Your task to perform on an android device: Open location settings Image 0: 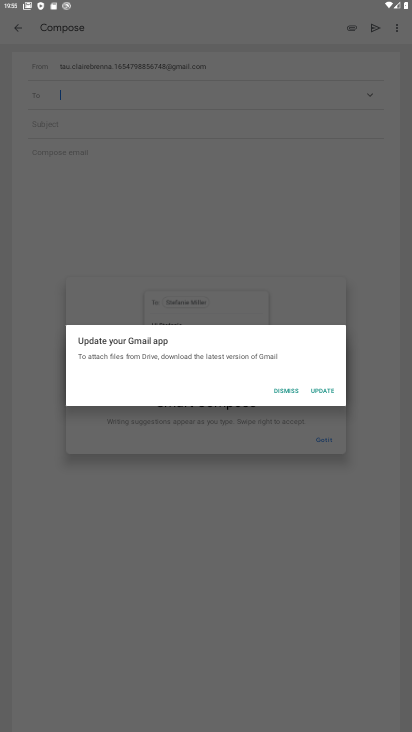
Step 0: click (288, 390)
Your task to perform on an android device: Open location settings Image 1: 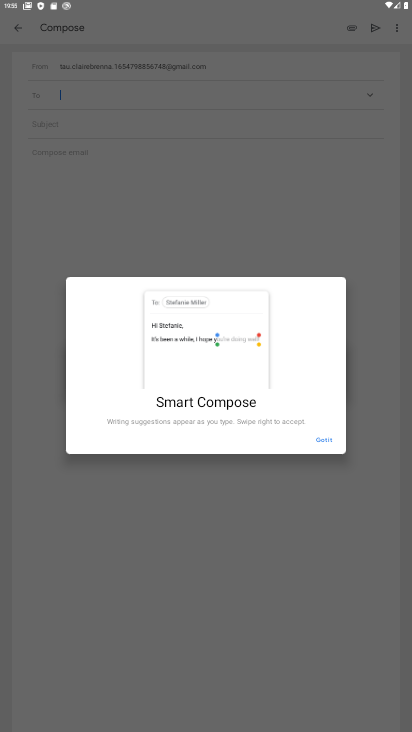
Step 1: click (325, 429)
Your task to perform on an android device: Open location settings Image 2: 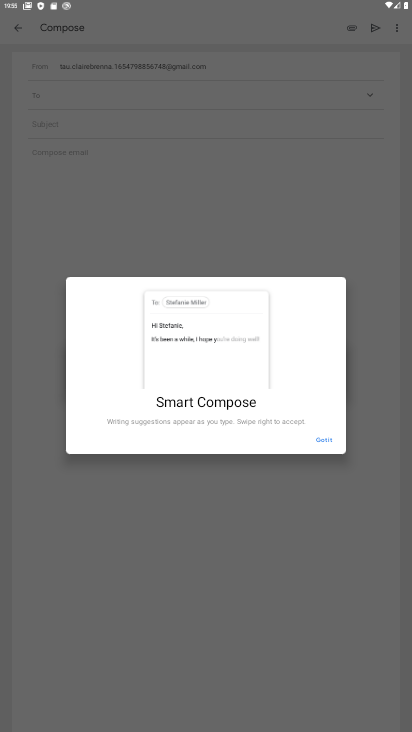
Step 2: click (326, 431)
Your task to perform on an android device: Open location settings Image 3: 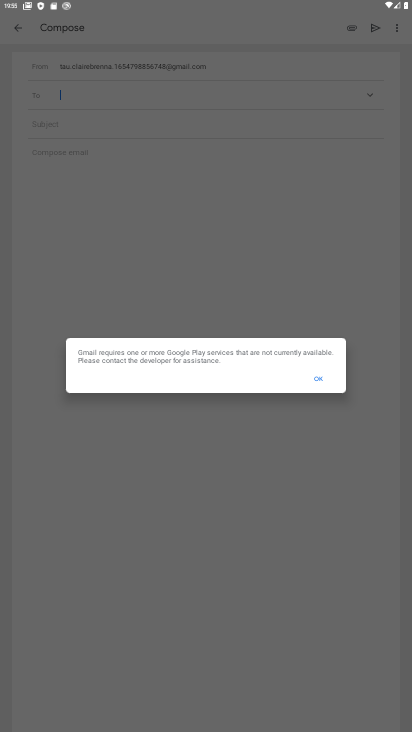
Step 3: click (327, 433)
Your task to perform on an android device: Open location settings Image 4: 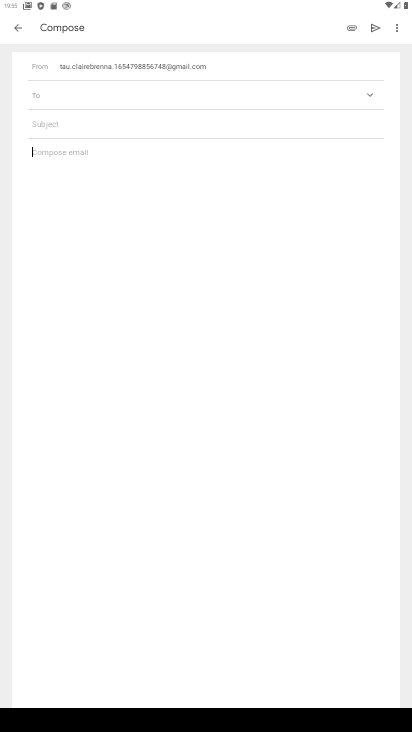
Step 4: click (24, 31)
Your task to perform on an android device: Open location settings Image 5: 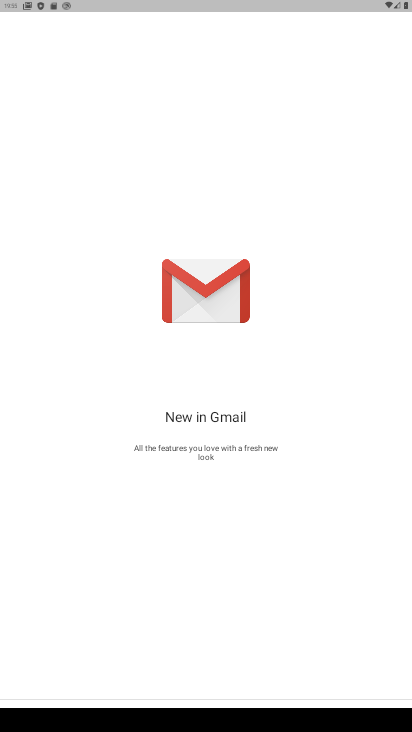
Step 5: press back button
Your task to perform on an android device: Open location settings Image 6: 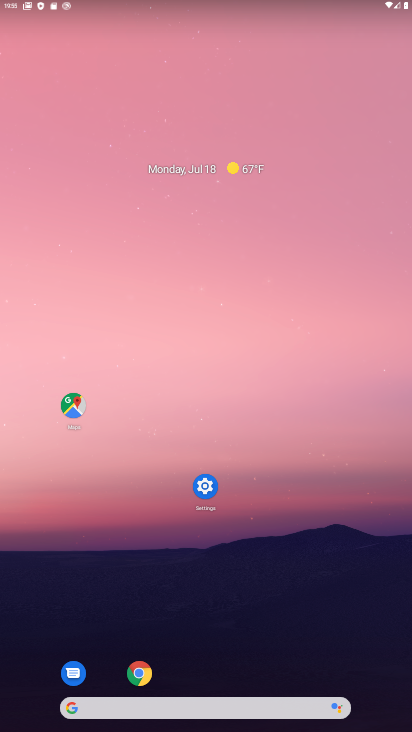
Step 6: drag from (251, 618) to (251, 289)
Your task to perform on an android device: Open location settings Image 7: 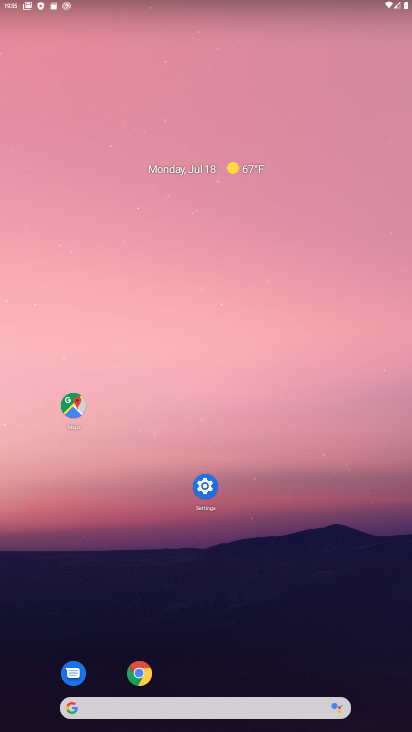
Step 7: drag from (242, 597) to (220, 351)
Your task to perform on an android device: Open location settings Image 8: 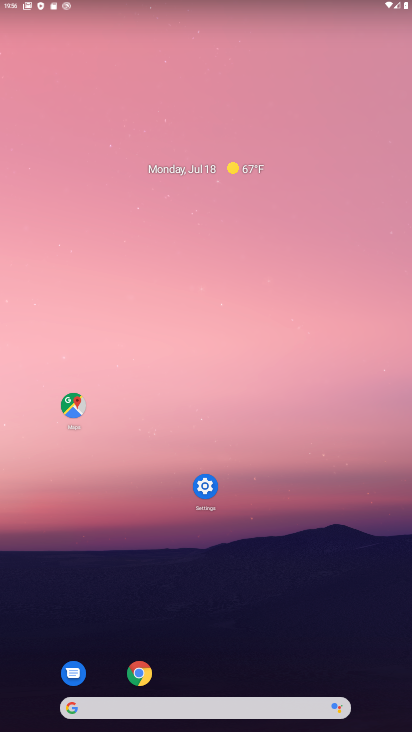
Step 8: click (205, 404)
Your task to perform on an android device: Open location settings Image 9: 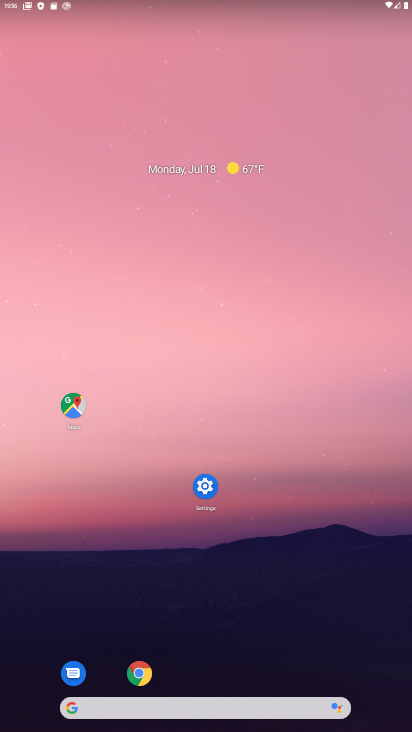
Step 9: drag from (209, 636) to (163, 278)
Your task to perform on an android device: Open location settings Image 10: 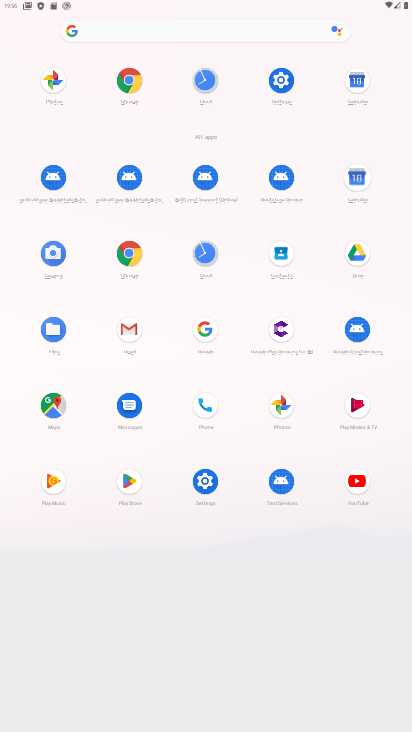
Step 10: drag from (208, 457) to (209, 495)
Your task to perform on an android device: Open location settings Image 11: 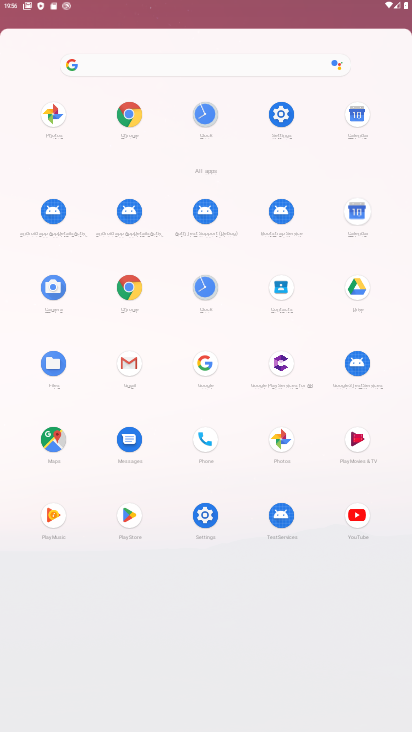
Step 11: click (209, 496)
Your task to perform on an android device: Open location settings Image 12: 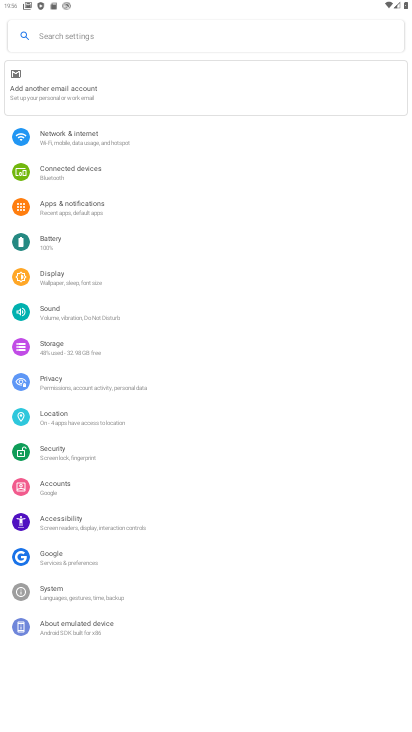
Step 12: click (71, 412)
Your task to perform on an android device: Open location settings Image 13: 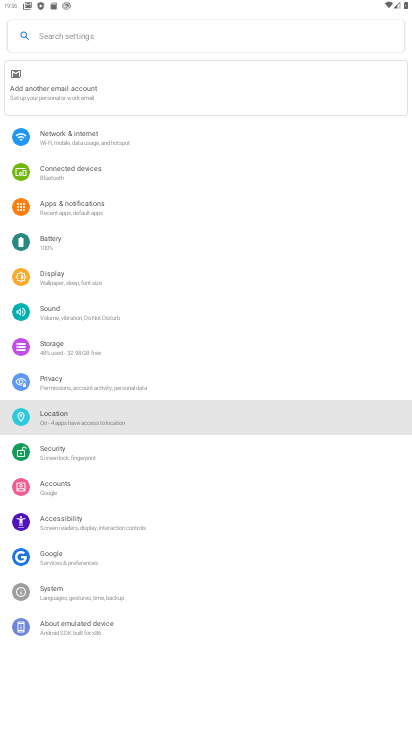
Step 13: click (59, 413)
Your task to perform on an android device: Open location settings Image 14: 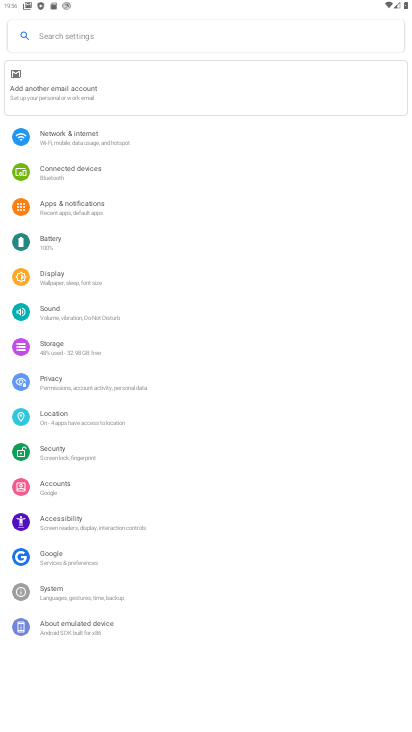
Step 14: click (58, 416)
Your task to perform on an android device: Open location settings Image 15: 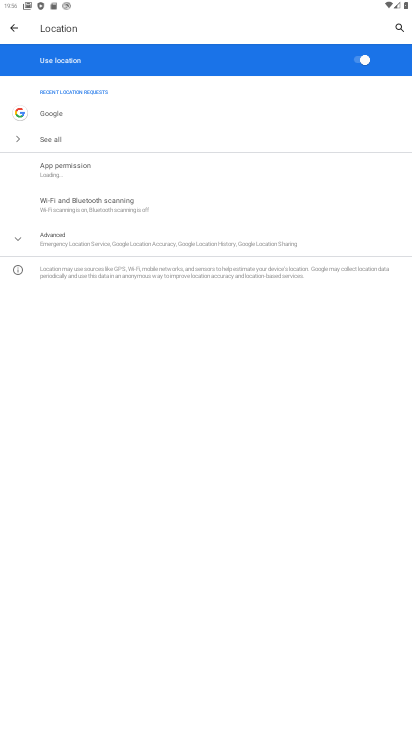
Step 15: task complete